Your task to perform on an android device: open the mobile data screen to see how much data has been used Image 0: 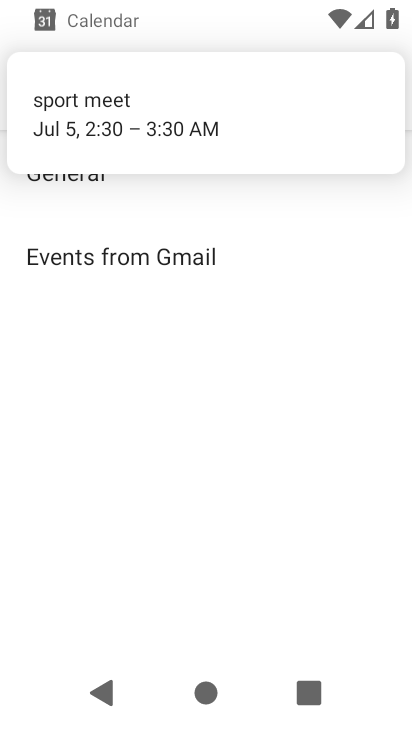
Step 0: press home button
Your task to perform on an android device: open the mobile data screen to see how much data has been used Image 1: 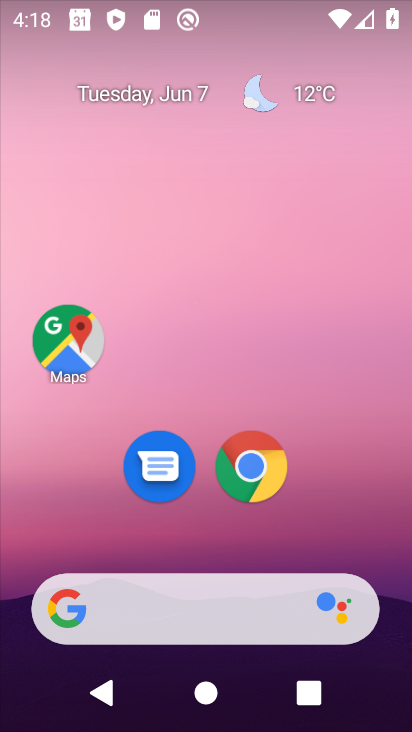
Step 1: drag from (364, 557) to (304, 78)
Your task to perform on an android device: open the mobile data screen to see how much data has been used Image 2: 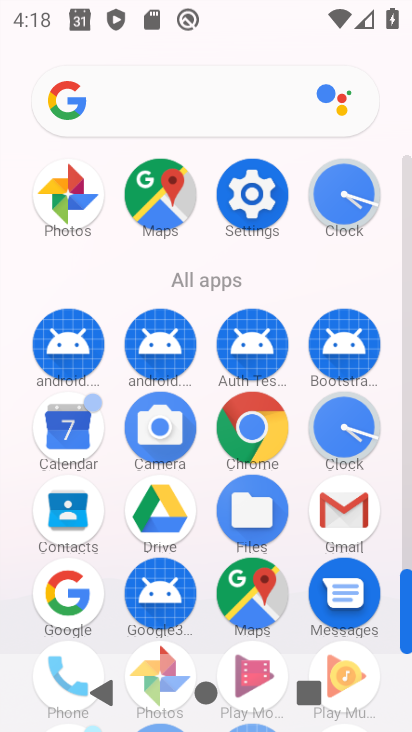
Step 2: click (246, 206)
Your task to perform on an android device: open the mobile data screen to see how much data has been used Image 3: 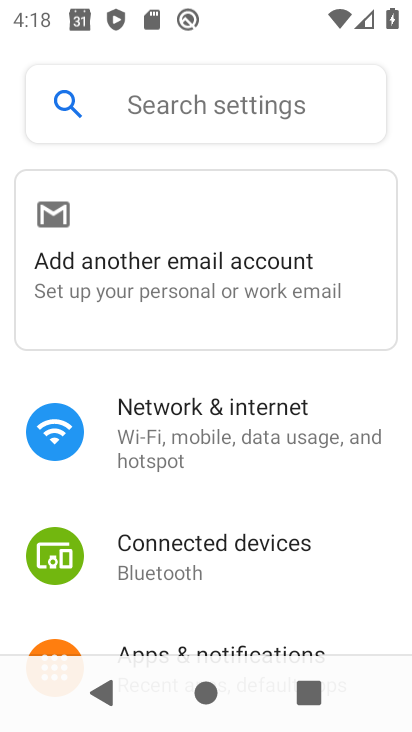
Step 3: click (270, 451)
Your task to perform on an android device: open the mobile data screen to see how much data has been used Image 4: 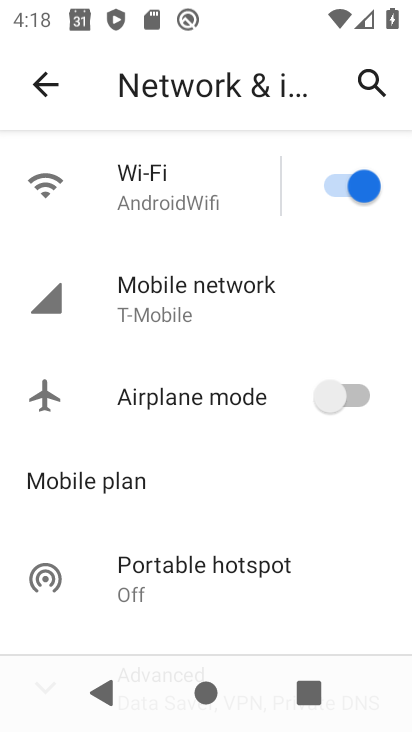
Step 4: click (238, 308)
Your task to perform on an android device: open the mobile data screen to see how much data has been used Image 5: 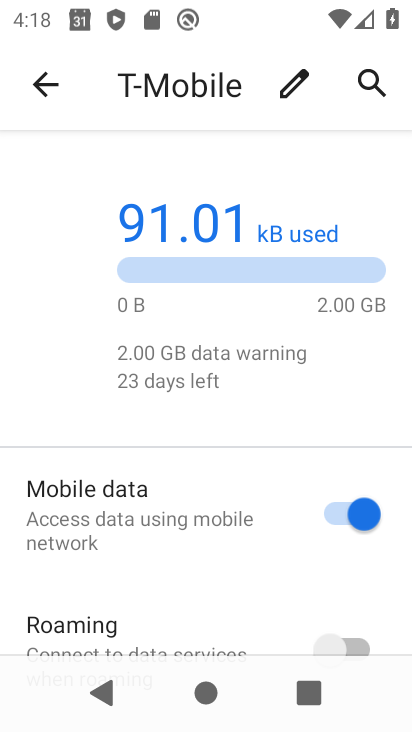
Step 5: task complete